Your task to perform on an android device: Open Reddit.com Image 0: 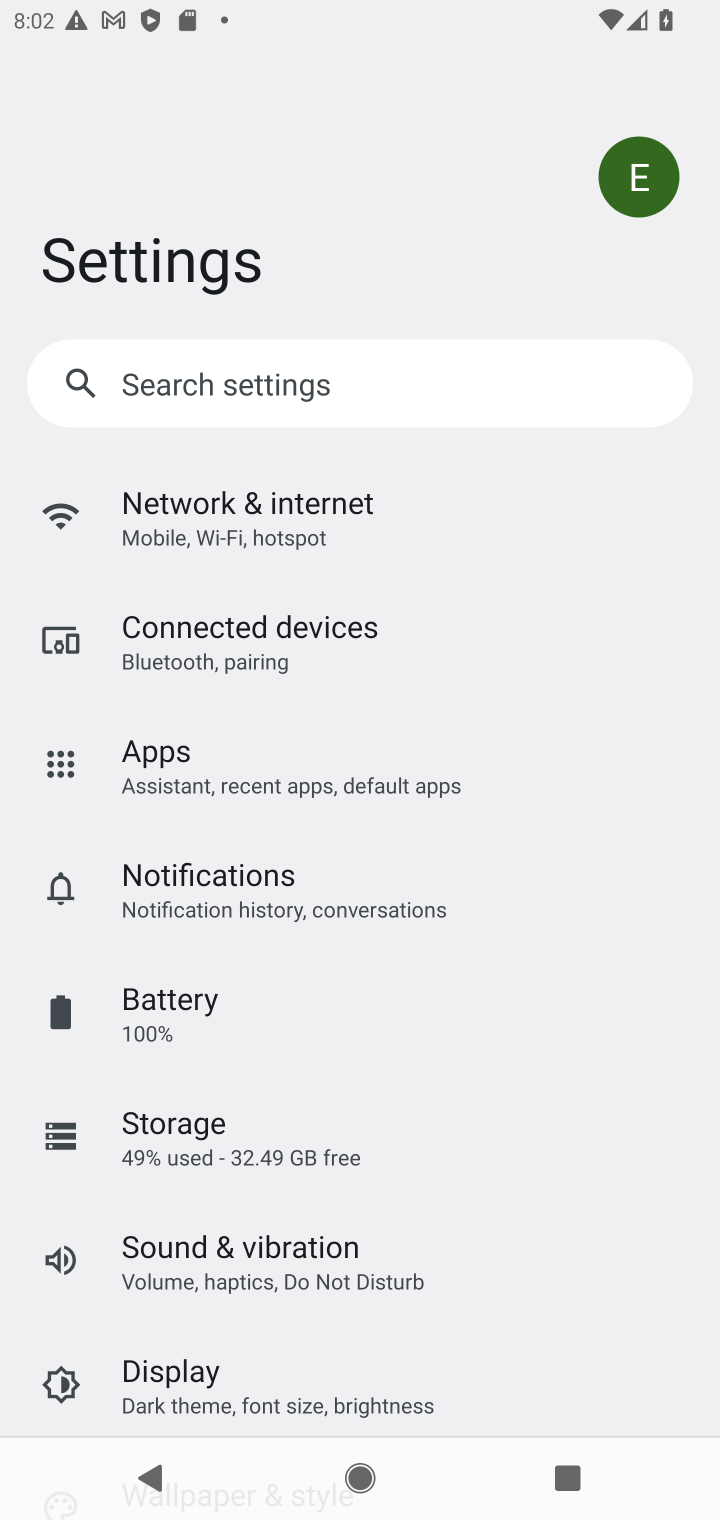
Step 0: press home button
Your task to perform on an android device: Open Reddit.com Image 1: 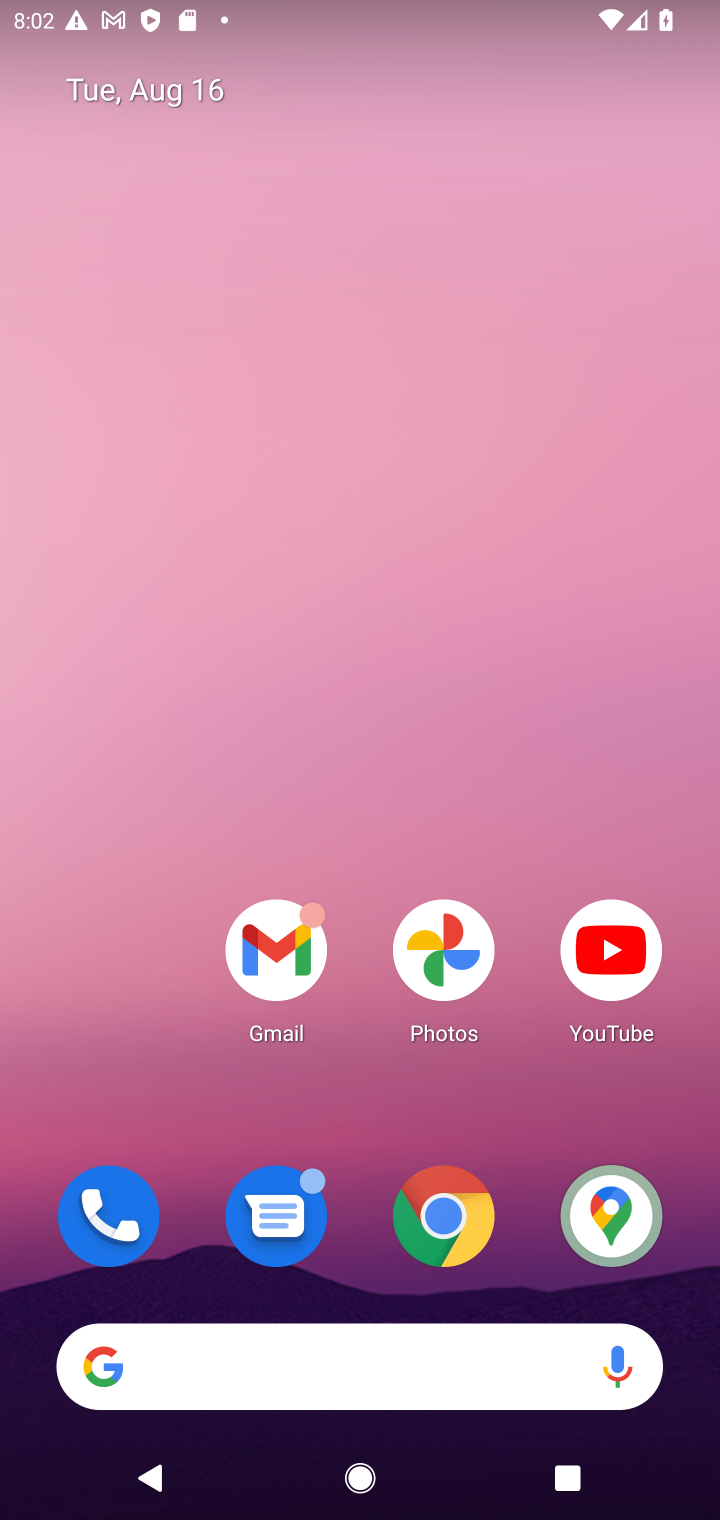
Step 1: drag from (382, 1360) to (584, 359)
Your task to perform on an android device: Open Reddit.com Image 2: 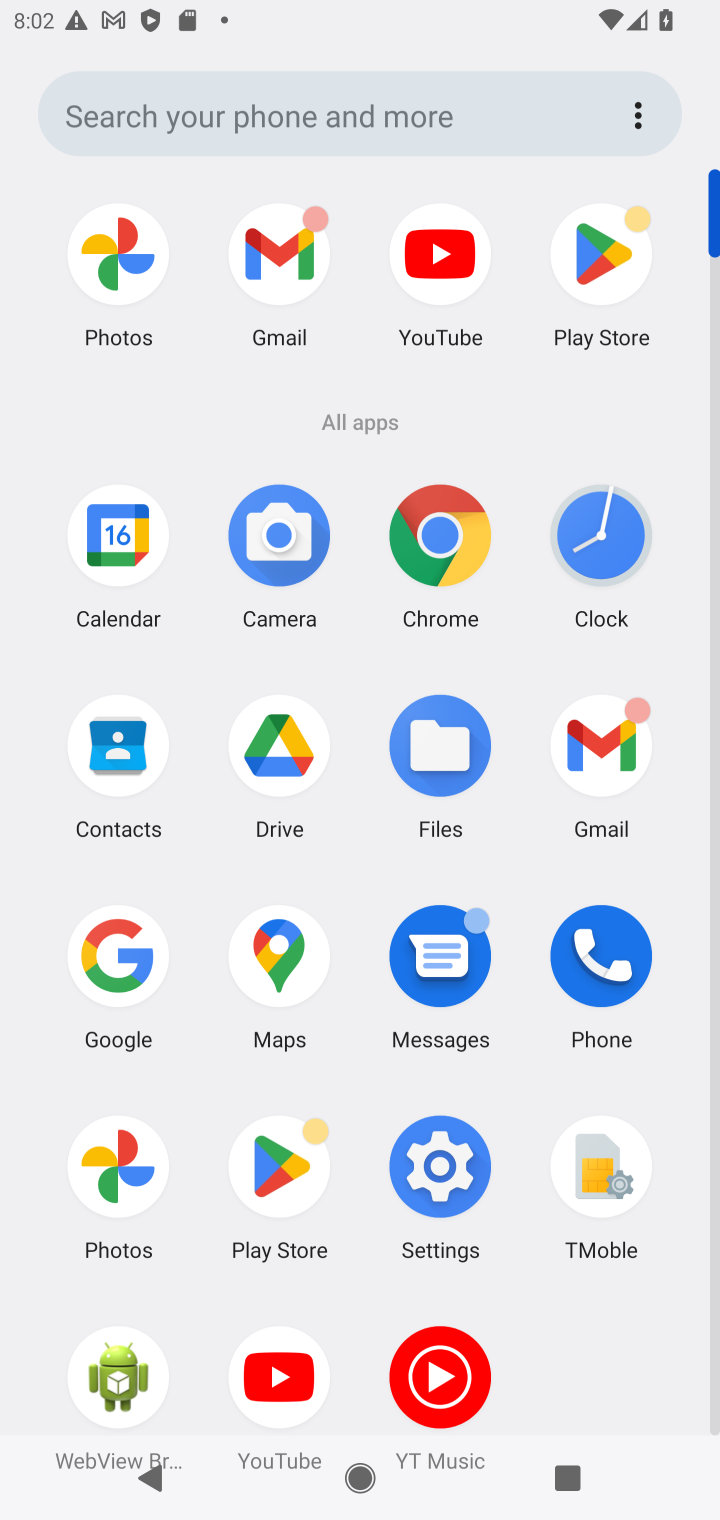
Step 2: click (434, 527)
Your task to perform on an android device: Open Reddit.com Image 3: 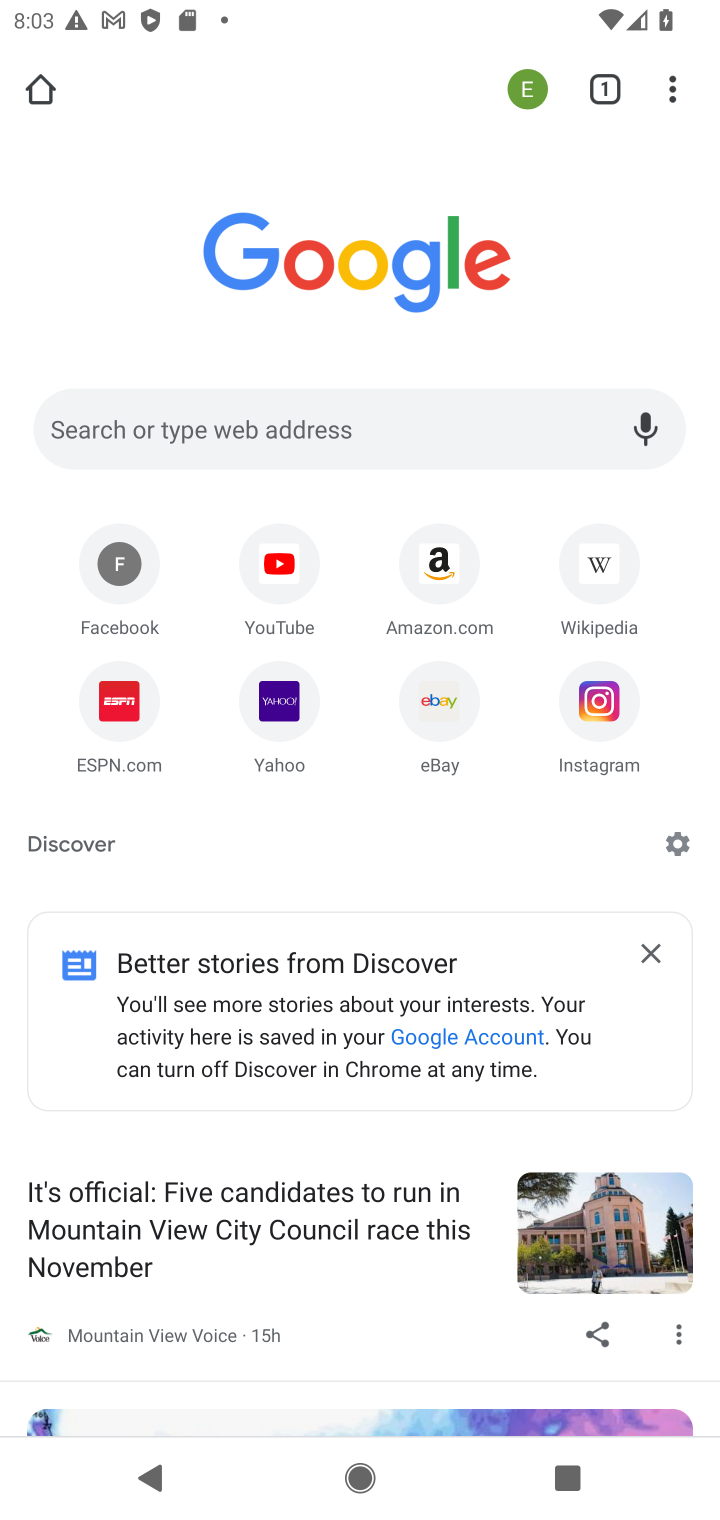
Step 3: click (332, 395)
Your task to perform on an android device: Open Reddit.com Image 4: 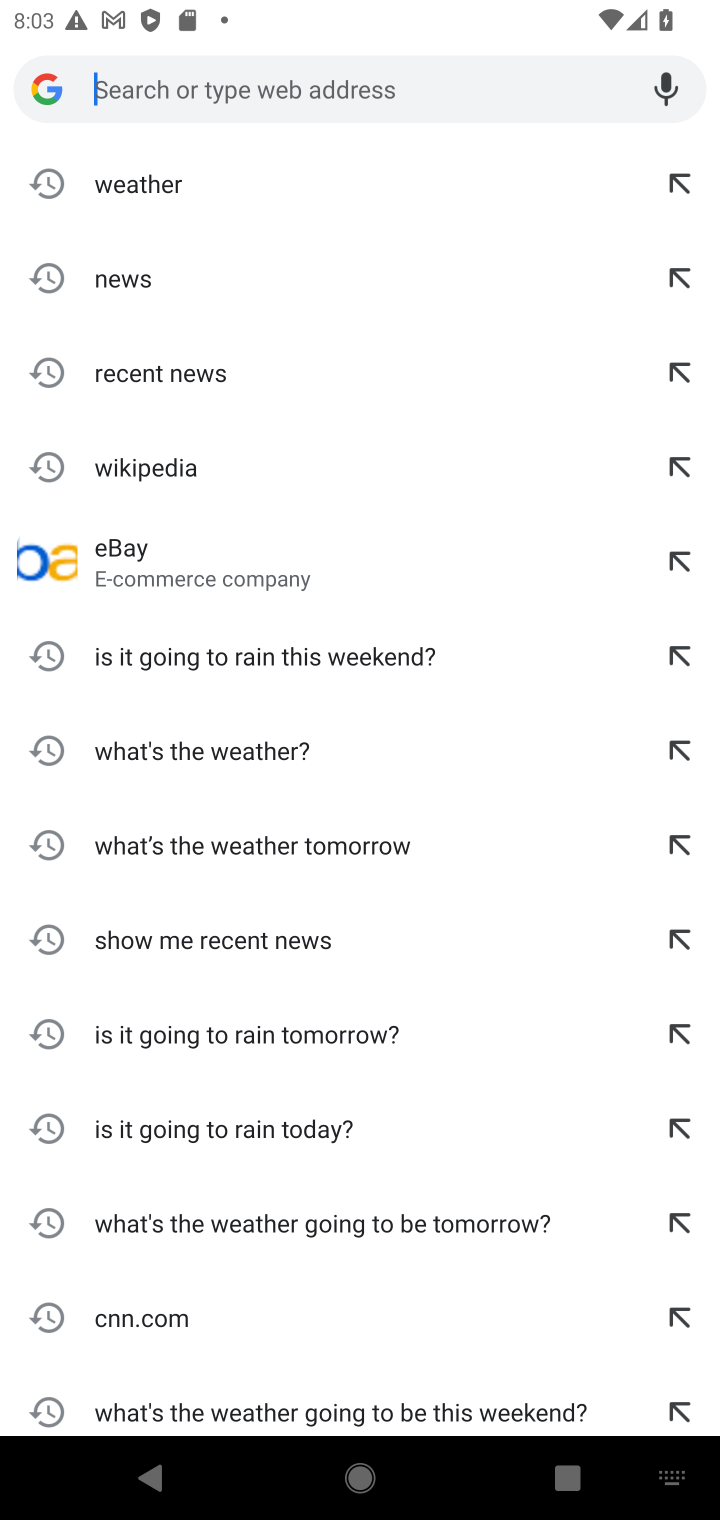
Step 4: type "Reddit.com"
Your task to perform on an android device: Open Reddit.com Image 5: 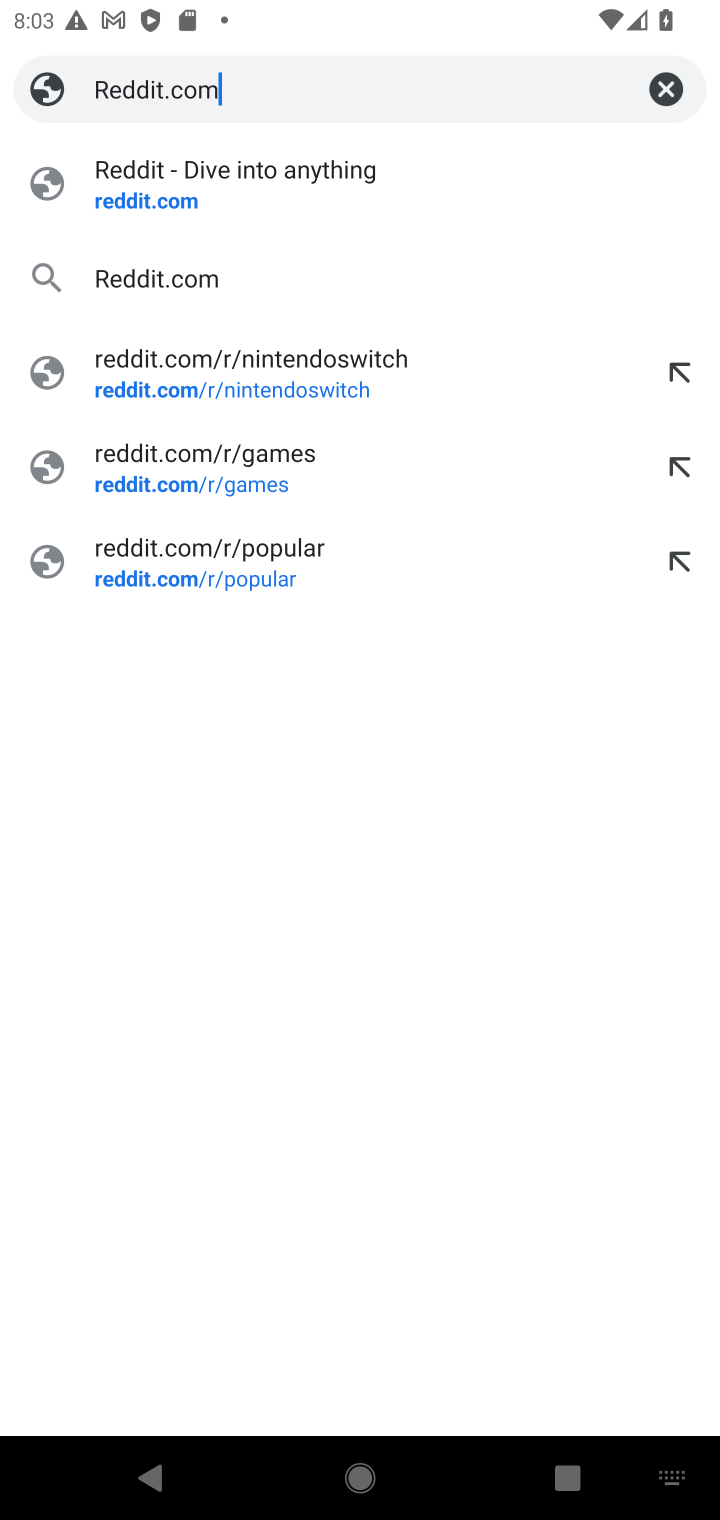
Step 5: click (269, 188)
Your task to perform on an android device: Open Reddit.com Image 6: 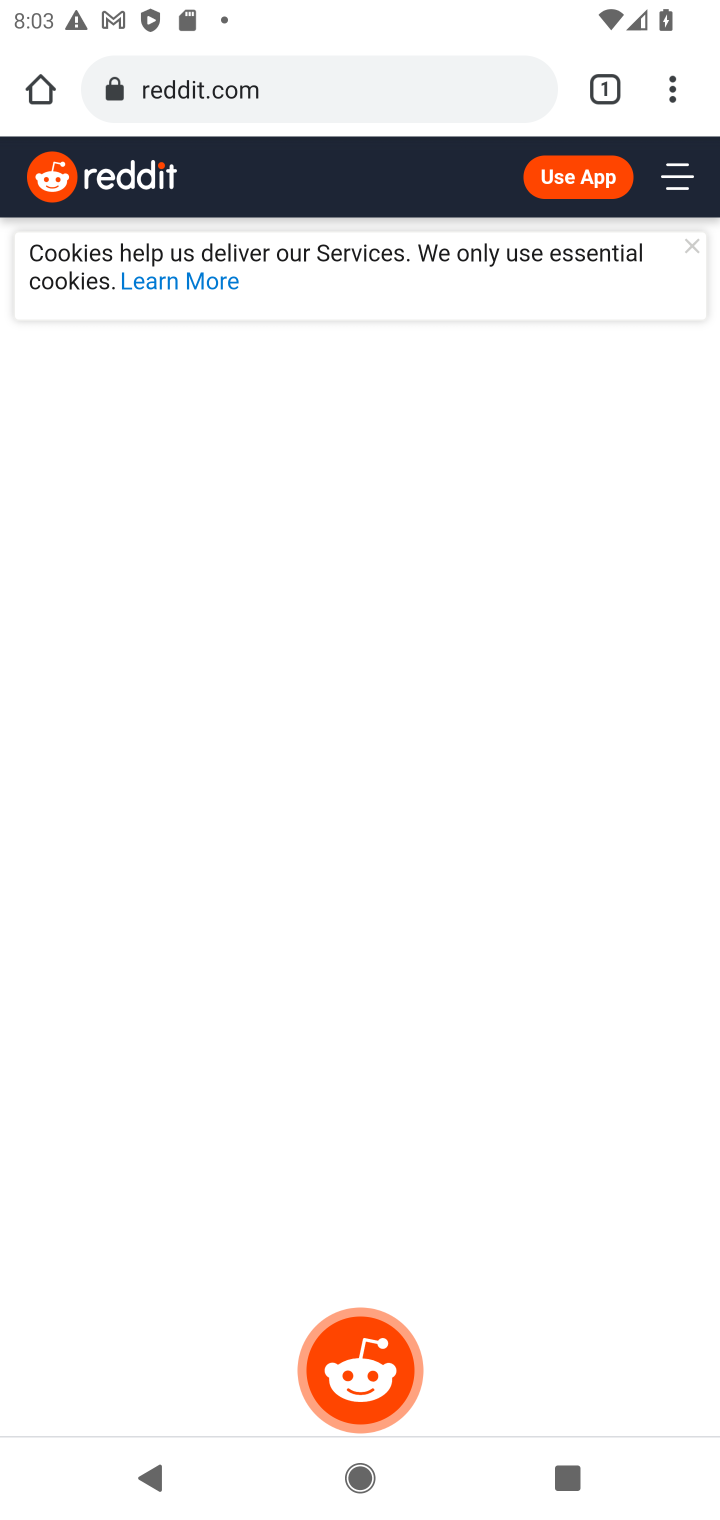
Step 6: task complete